Your task to perform on an android device: Open Maps and search for coffee Image 0: 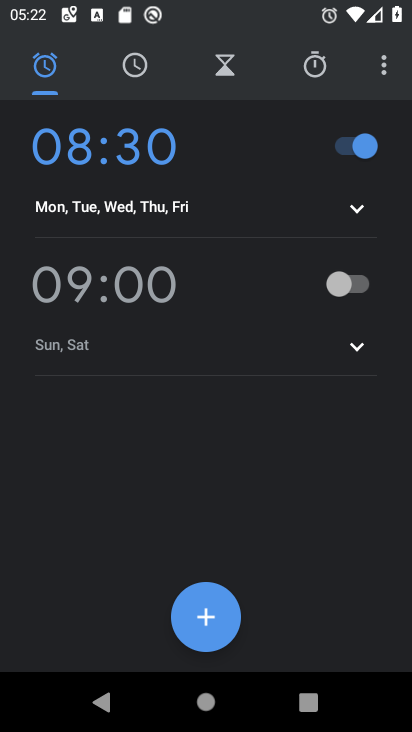
Step 0: press home button
Your task to perform on an android device: Open Maps and search for coffee Image 1: 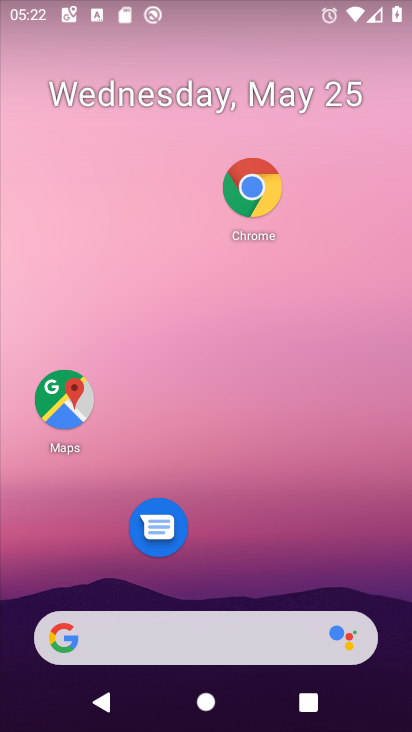
Step 1: drag from (221, 576) to (286, 215)
Your task to perform on an android device: Open Maps and search for coffee Image 2: 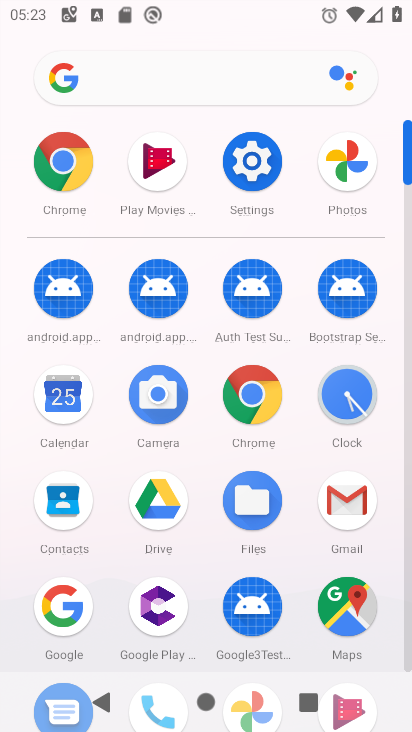
Step 2: click (346, 623)
Your task to perform on an android device: Open Maps and search for coffee Image 3: 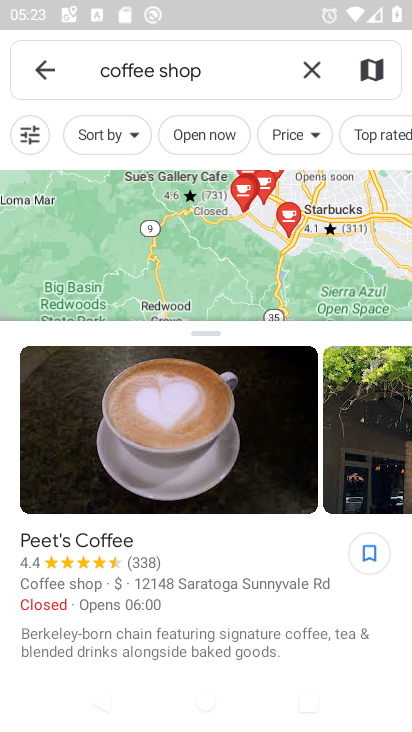
Step 3: click (318, 68)
Your task to perform on an android device: Open Maps and search for coffee Image 4: 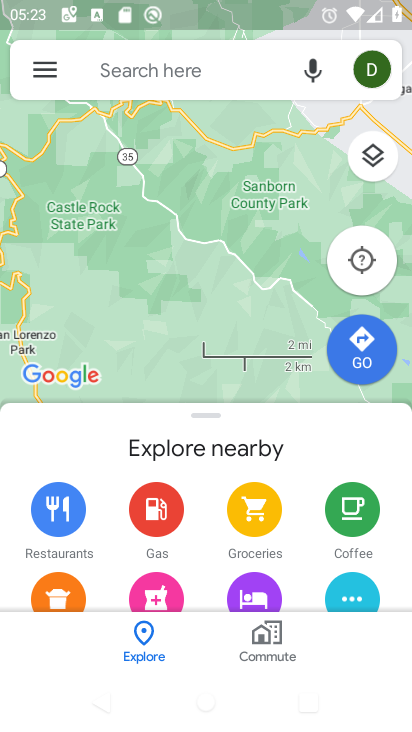
Step 4: click (221, 58)
Your task to perform on an android device: Open Maps and search for coffee Image 5: 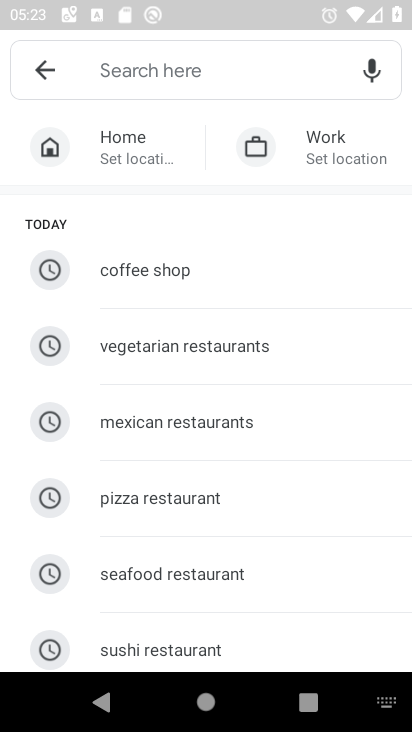
Step 5: type "coffee"
Your task to perform on an android device: Open Maps and search for coffee Image 6: 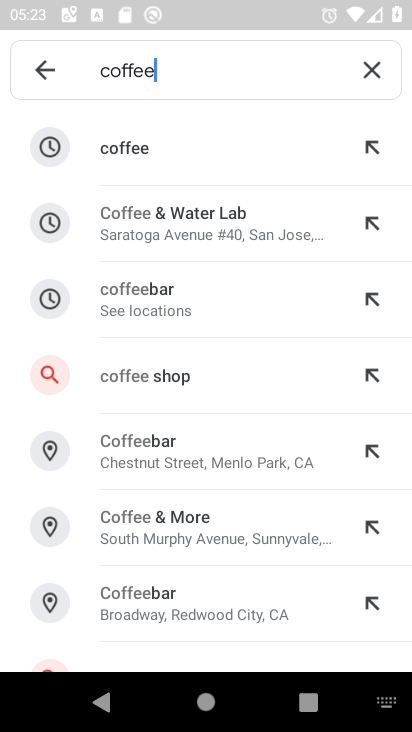
Step 6: click (154, 153)
Your task to perform on an android device: Open Maps and search for coffee Image 7: 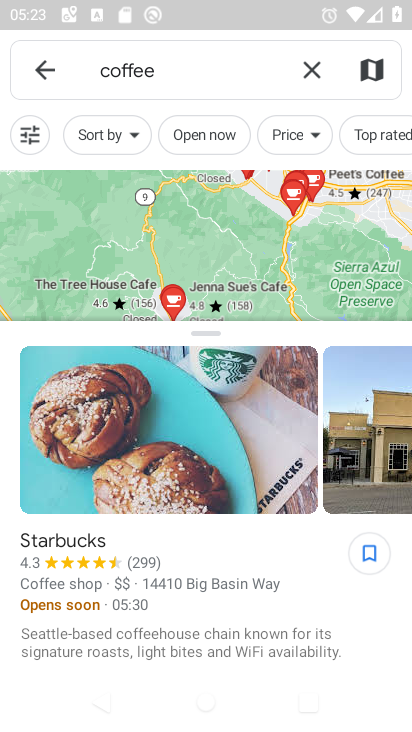
Step 7: task complete